Your task to perform on an android device: Open the contacts Image 0: 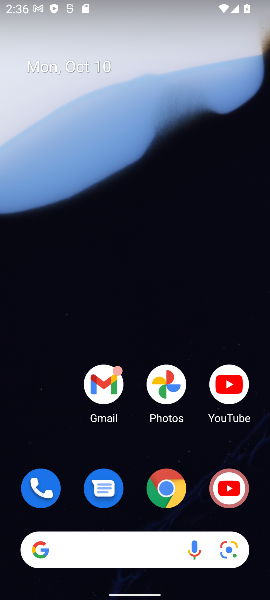
Step 0: drag from (135, 518) to (209, 1)
Your task to perform on an android device: Open the contacts Image 1: 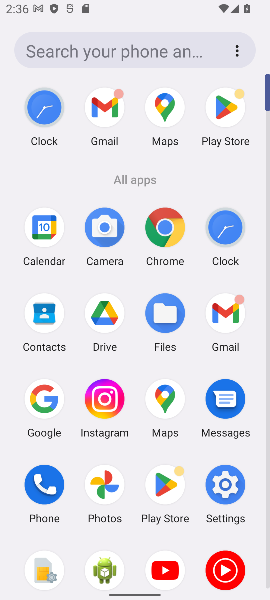
Step 1: click (45, 325)
Your task to perform on an android device: Open the contacts Image 2: 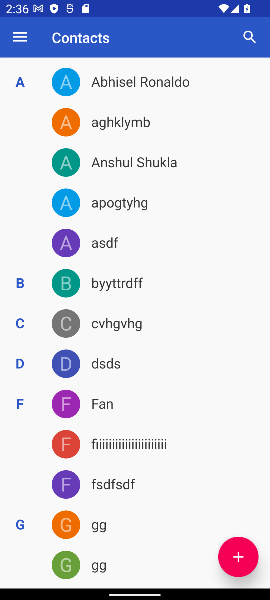
Step 2: task complete